Your task to perform on an android device: open app "ColorNote Notepad Notes" Image 0: 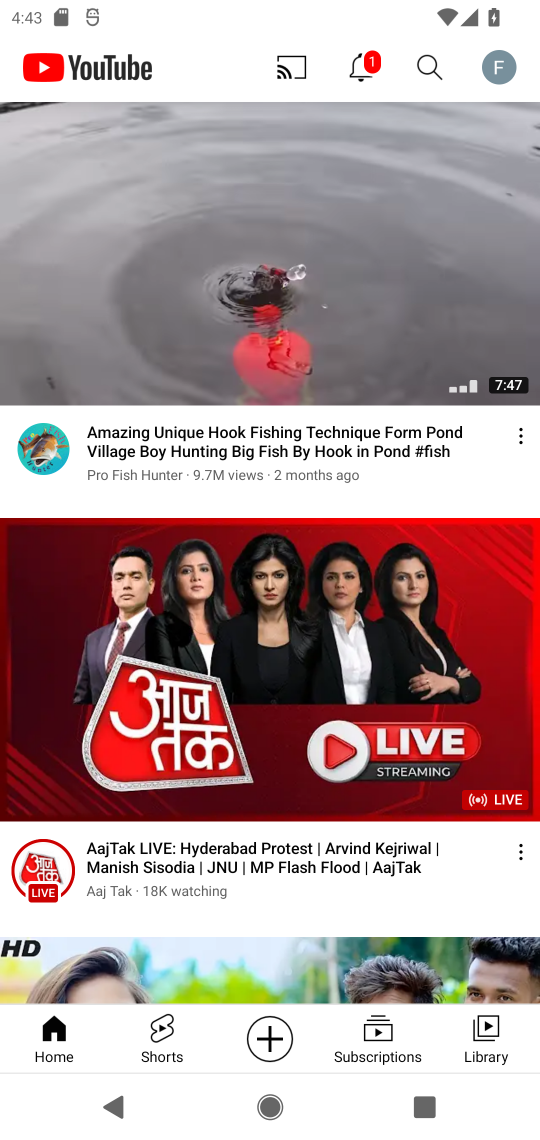
Step 0: press home button
Your task to perform on an android device: open app "ColorNote Notepad Notes" Image 1: 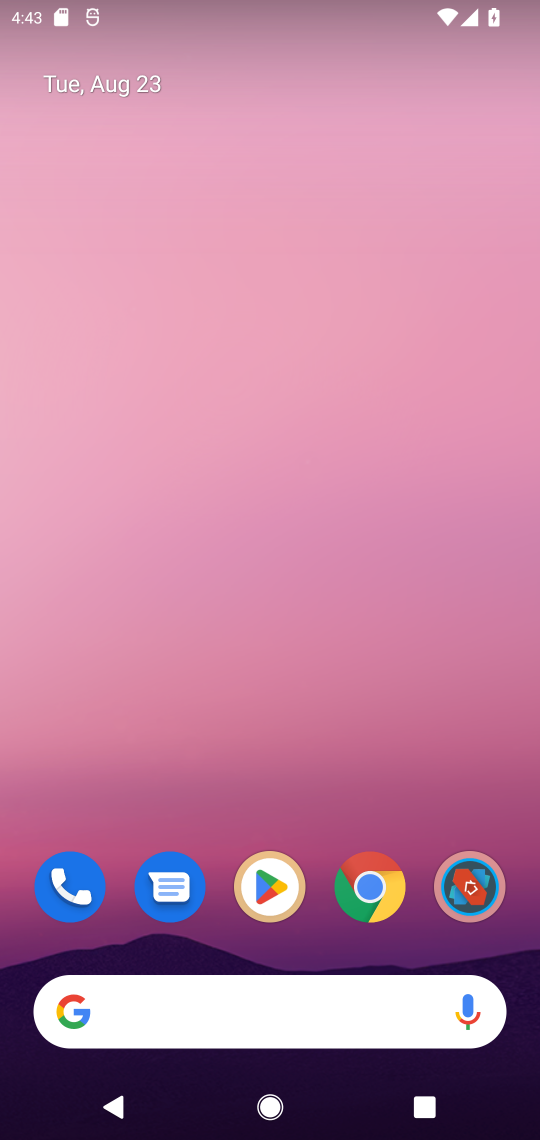
Step 1: click (281, 885)
Your task to perform on an android device: open app "ColorNote Notepad Notes" Image 2: 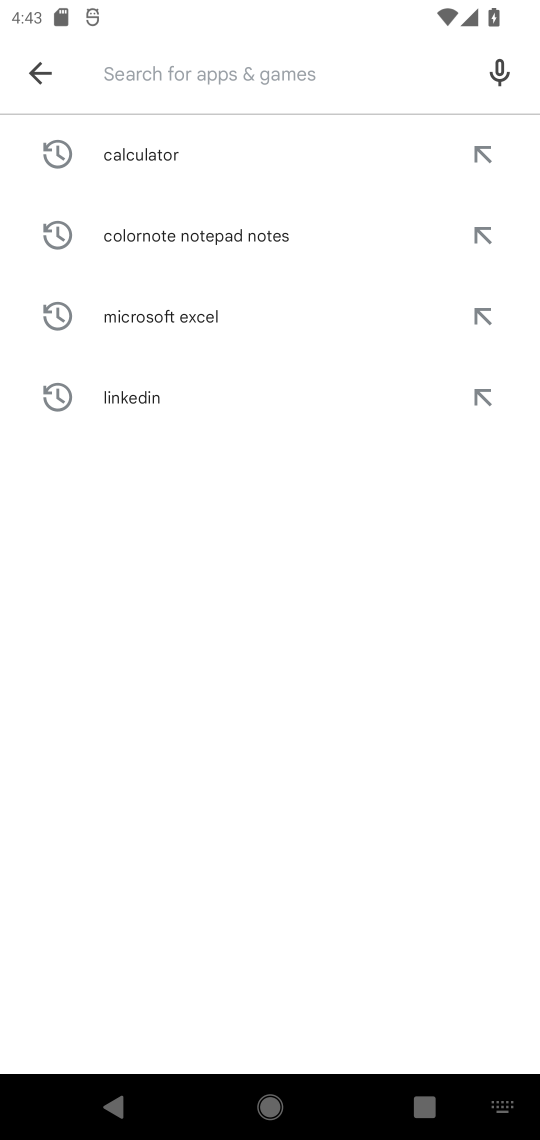
Step 2: click (27, 79)
Your task to perform on an android device: open app "ColorNote Notepad Notes" Image 3: 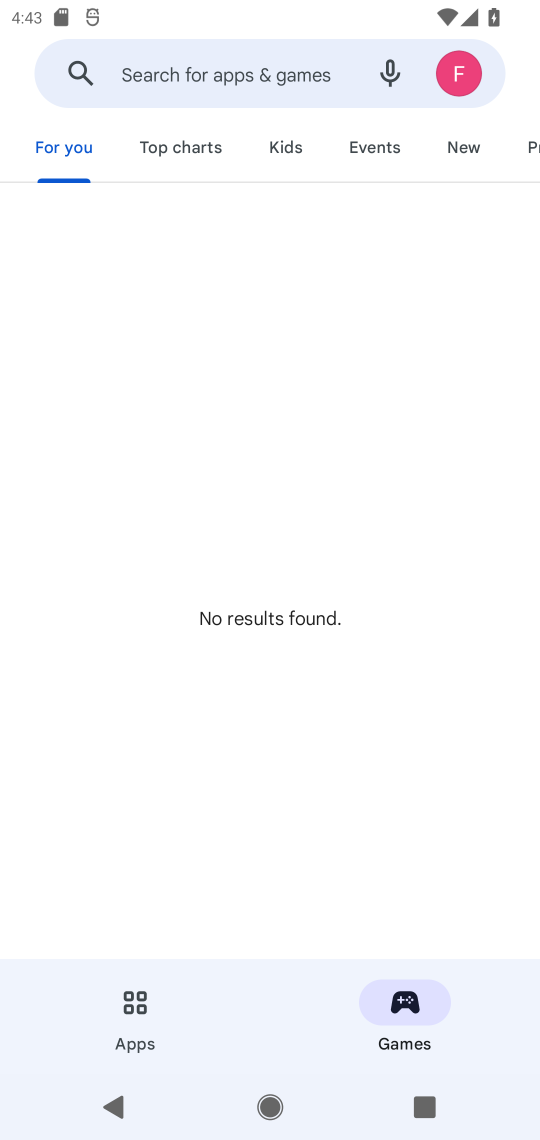
Step 3: click (223, 72)
Your task to perform on an android device: open app "ColorNote Notepad Notes" Image 4: 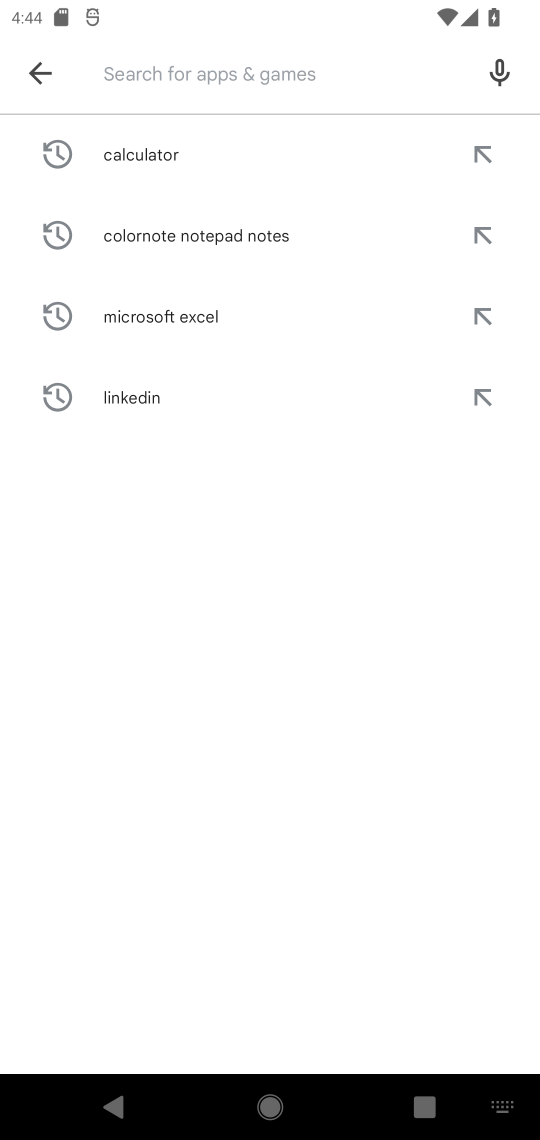
Step 4: type "ColorNote Notepad Notes"
Your task to perform on an android device: open app "ColorNote Notepad Notes" Image 5: 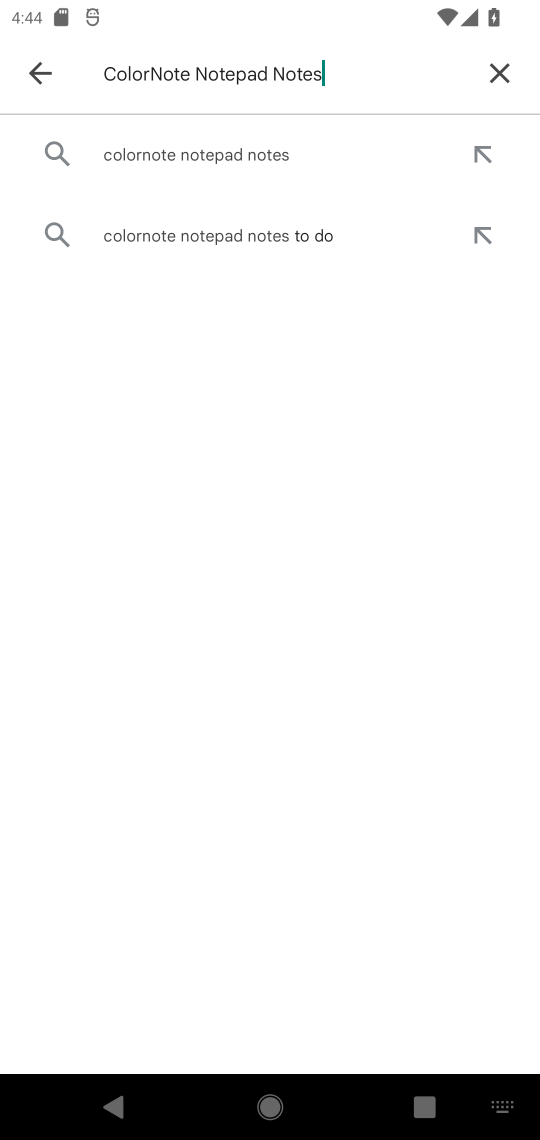
Step 5: click (182, 156)
Your task to perform on an android device: open app "ColorNote Notepad Notes" Image 6: 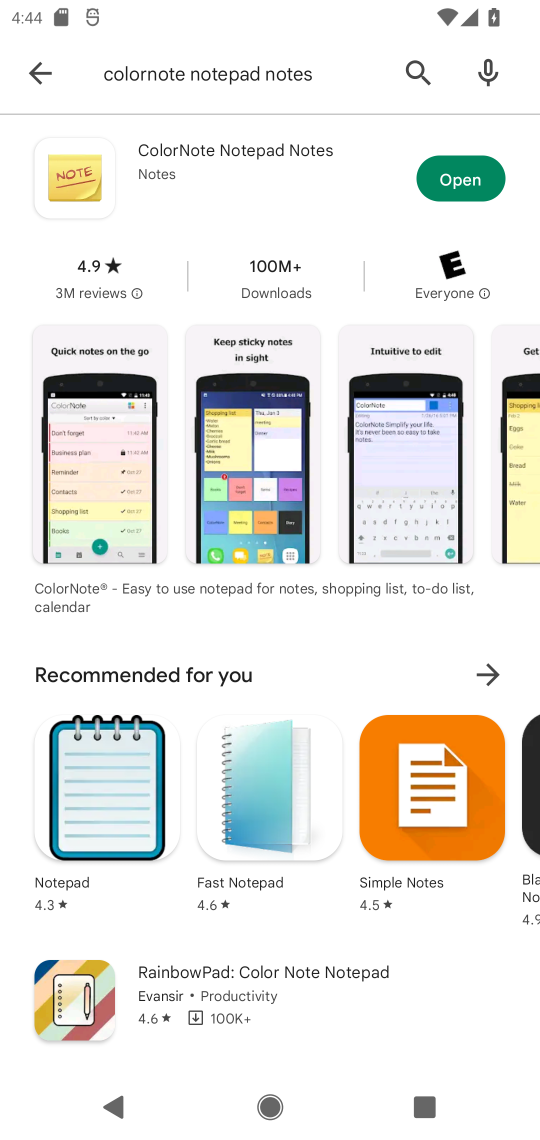
Step 6: click (478, 171)
Your task to perform on an android device: open app "ColorNote Notepad Notes" Image 7: 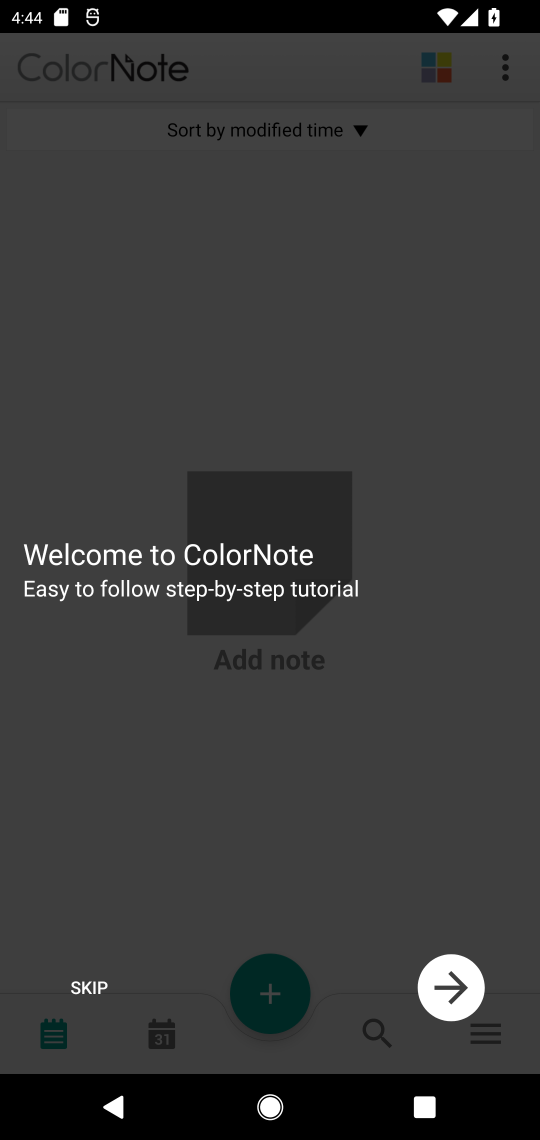
Step 7: task complete